Your task to perform on an android device: change the upload size in google photos Image 0: 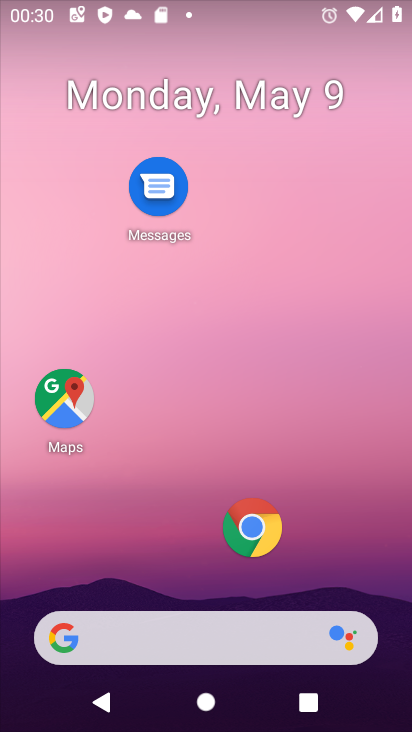
Step 0: drag from (178, 583) to (196, 89)
Your task to perform on an android device: change the upload size in google photos Image 1: 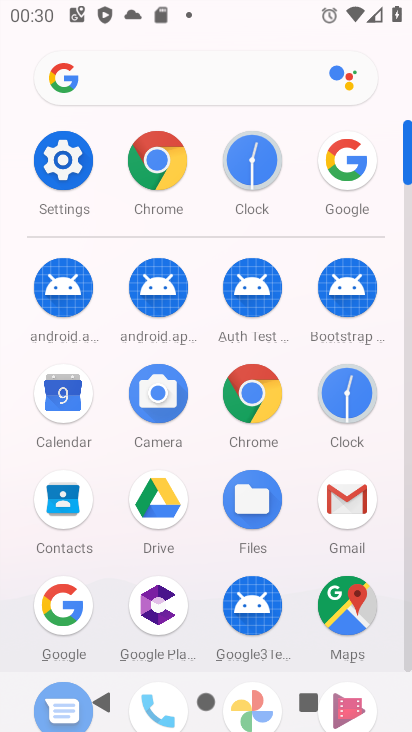
Step 1: drag from (202, 584) to (205, 236)
Your task to perform on an android device: change the upload size in google photos Image 2: 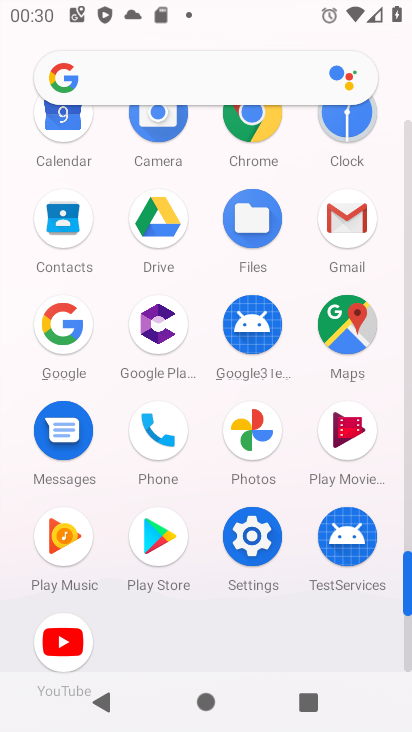
Step 2: click (248, 436)
Your task to perform on an android device: change the upload size in google photos Image 3: 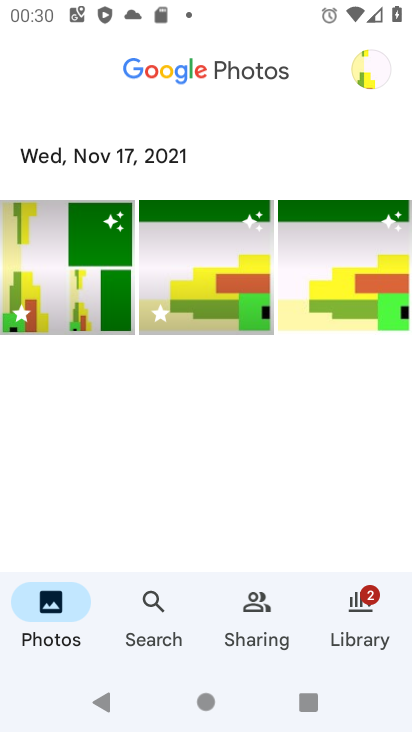
Step 3: click (358, 56)
Your task to perform on an android device: change the upload size in google photos Image 4: 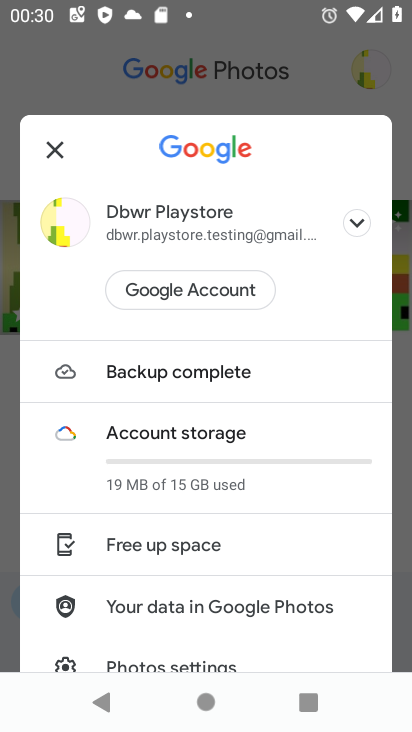
Step 4: drag from (203, 555) to (232, 268)
Your task to perform on an android device: change the upload size in google photos Image 5: 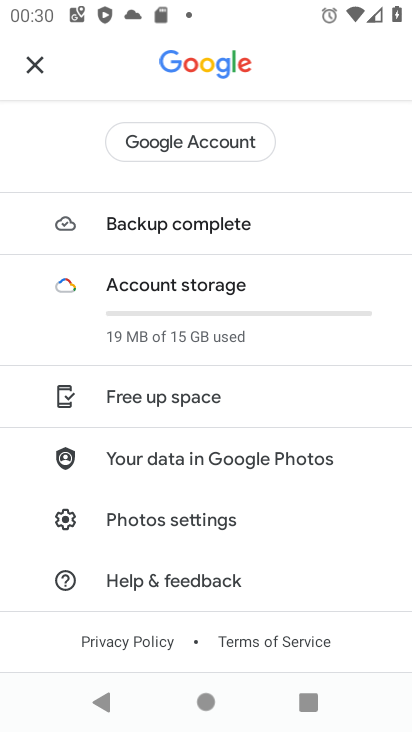
Step 5: click (193, 519)
Your task to perform on an android device: change the upload size in google photos Image 6: 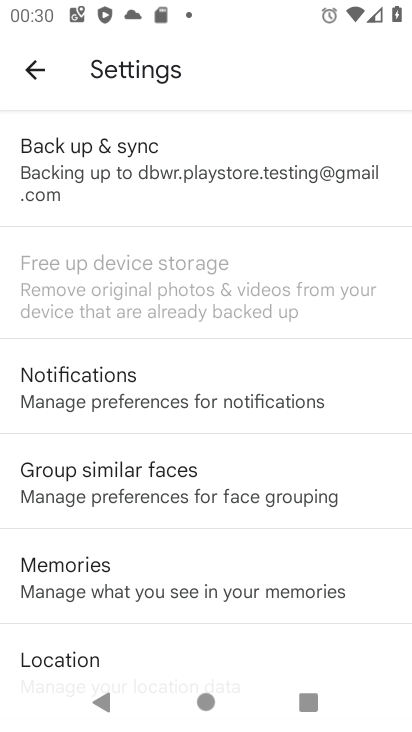
Step 6: click (131, 172)
Your task to perform on an android device: change the upload size in google photos Image 7: 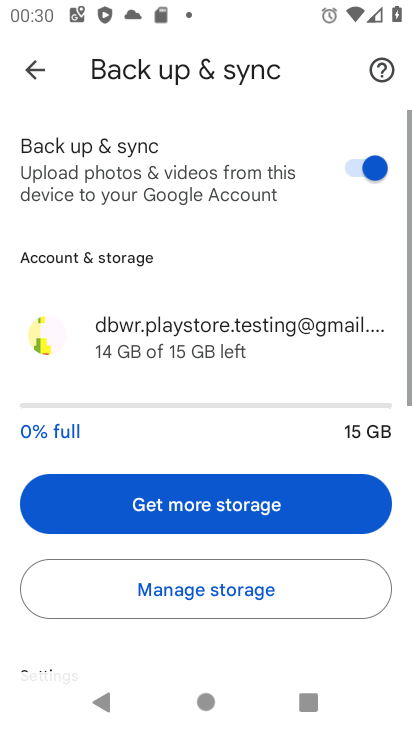
Step 7: drag from (198, 551) to (228, 208)
Your task to perform on an android device: change the upload size in google photos Image 8: 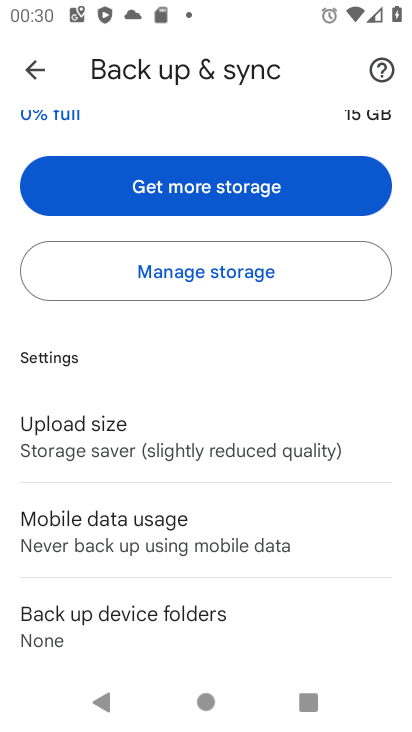
Step 8: click (125, 443)
Your task to perform on an android device: change the upload size in google photos Image 9: 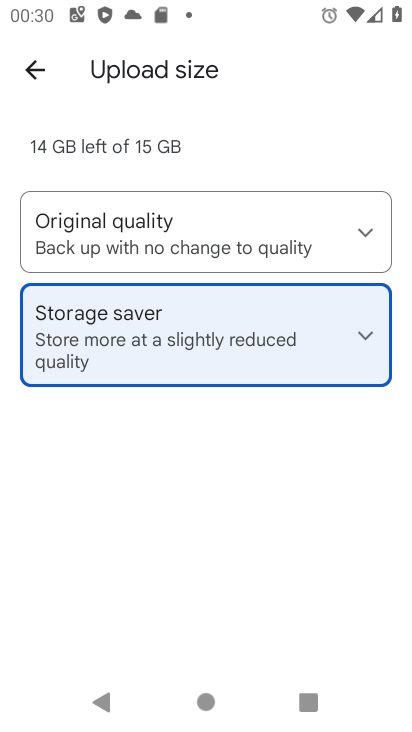
Step 9: click (155, 230)
Your task to perform on an android device: change the upload size in google photos Image 10: 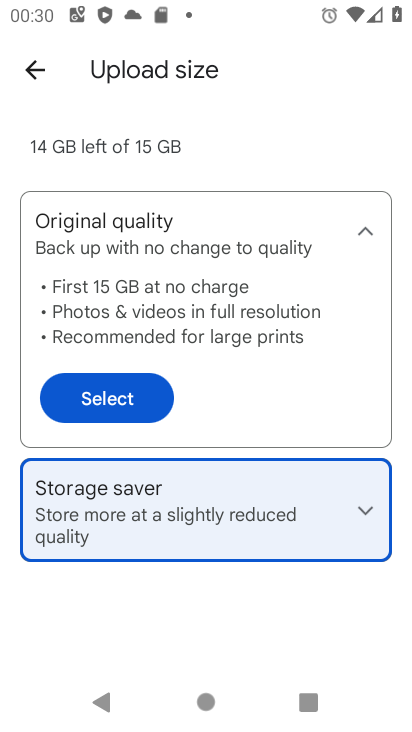
Step 10: click (129, 381)
Your task to perform on an android device: change the upload size in google photos Image 11: 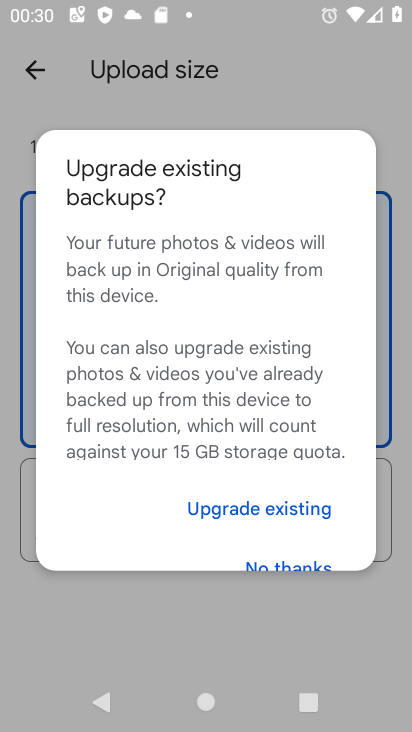
Step 11: drag from (274, 510) to (281, 330)
Your task to perform on an android device: change the upload size in google photos Image 12: 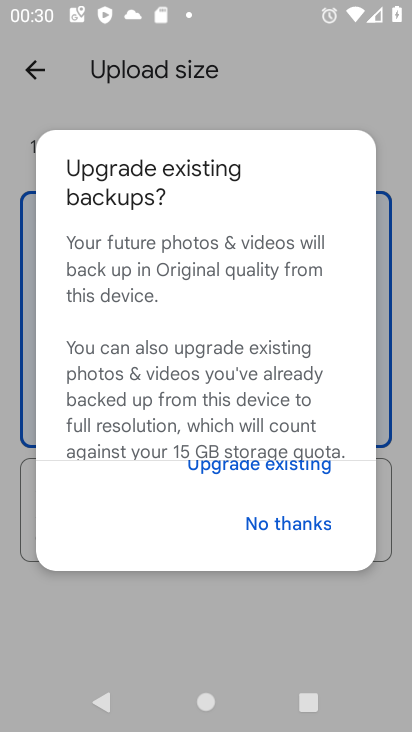
Step 12: click (274, 526)
Your task to perform on an android device: change the upload size in google photos Image 13: 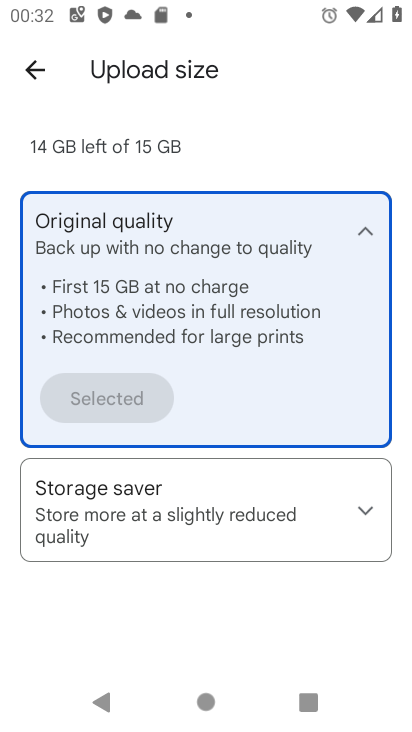
Step 13: task complete